Your task to perform on an android device: turn on sleep mode Image 0: 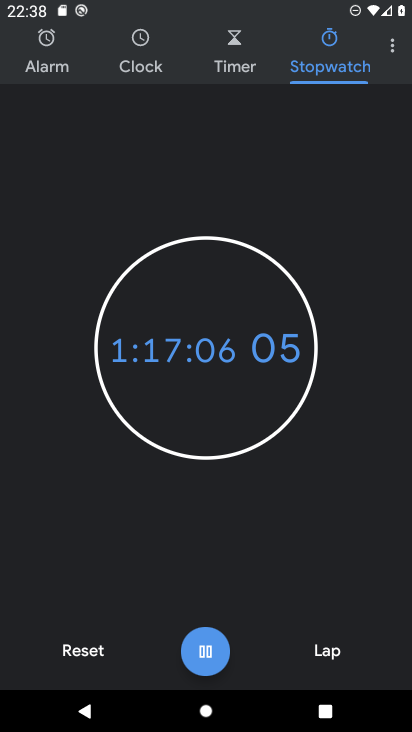
Step 0: press home button
Your task to perform on an android device: turn on sleep mode Image 1: 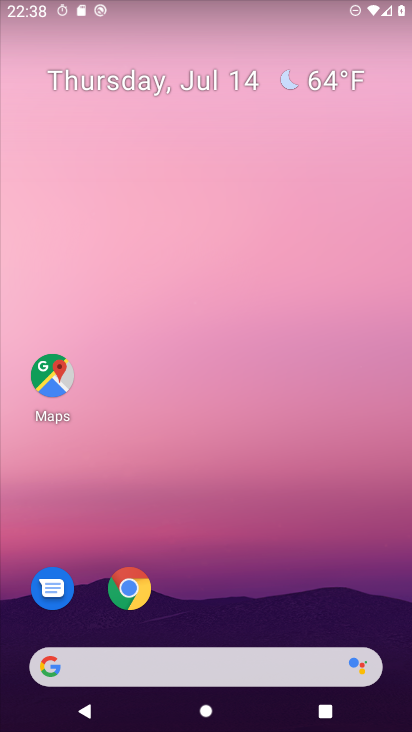
Step 1: drag from (379, 587) to (398, 222)
Your task to perform on an android device: turn on sleep mode Image 2: 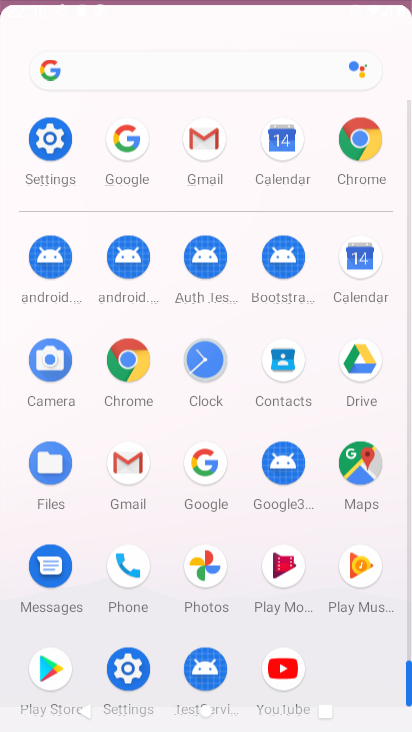
Step 2: drag from (341, 231) to (343, 92)
Your task to perform on an android device: turn on sleep mode Image 3: 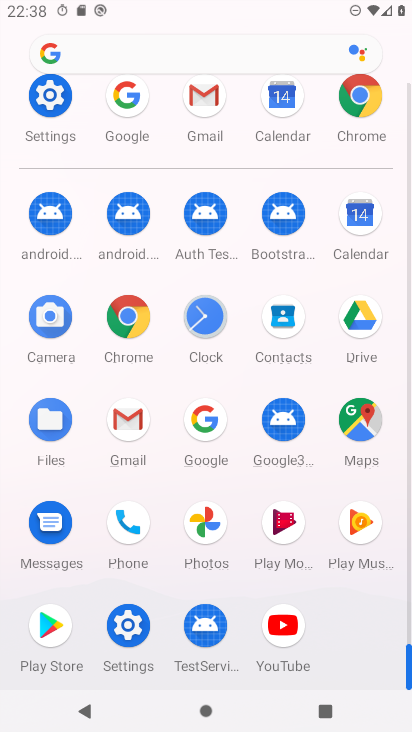
Step 3: click (62, 102)
Your task to perform on an android device: turn on sleep mode Image 4: 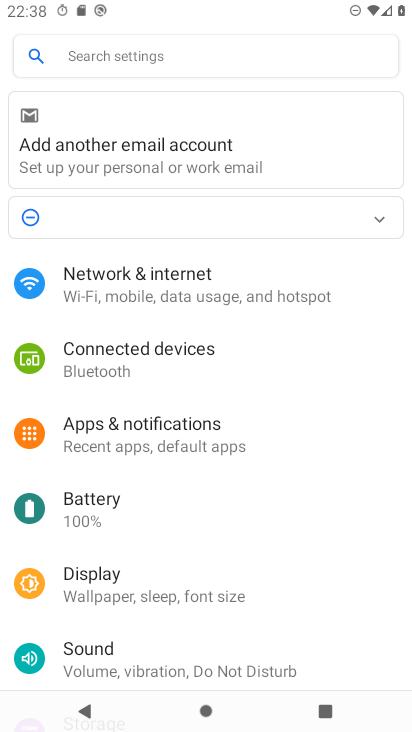
Step 4: drag from (333, 482) to (341, 395)
Your task to perform on an android device: turn on sleep mode Image 5: 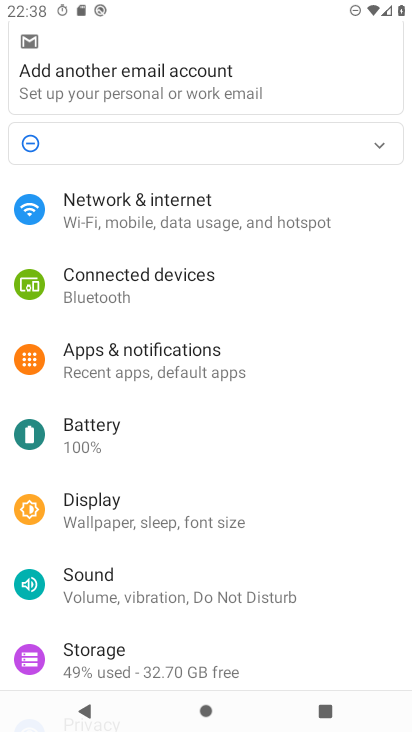
Step 5: drag from (332, 508) to (334, 416)
Your task to perform on an android device: turn on sleep mode Image 6: 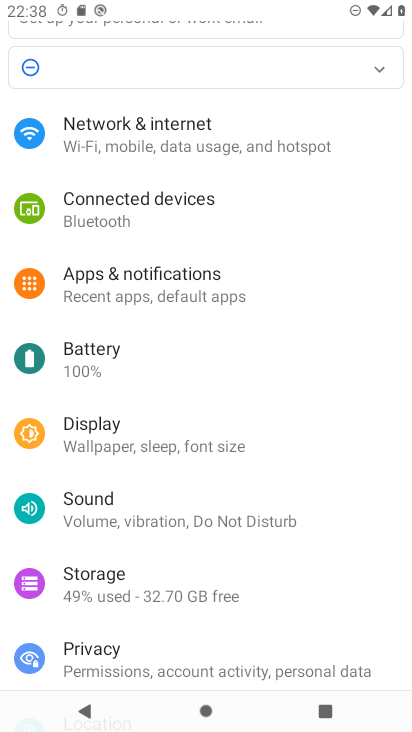
Step 6: drag from (342, 501) to (348, 420)
Your task to perform on an android device: turn on sleep mode Image 7: 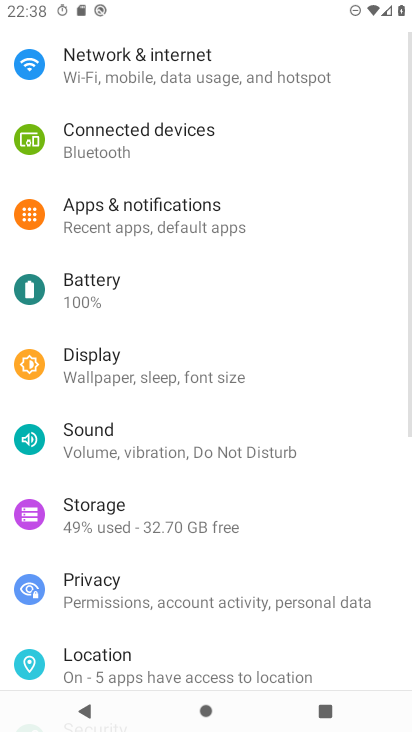
Step 7: drag from (343, 508) to (348, 416)
Your task to perform on an android device: turn on sleep mode Image 8: 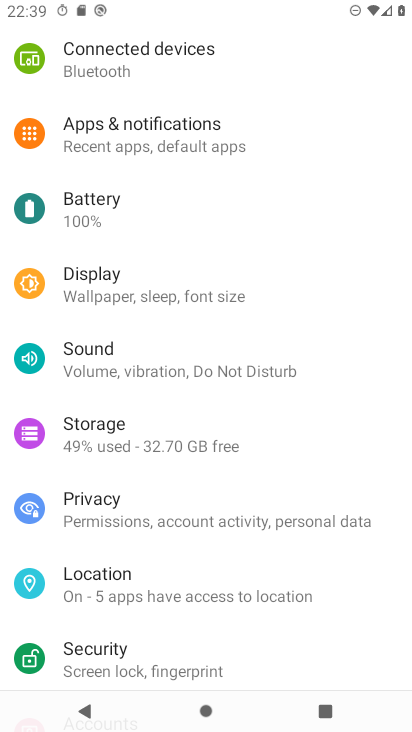
Step 8: drag from (339, 533) to (342, 419)
Your task to perform on an android device: turn on sleep mode Image 9: 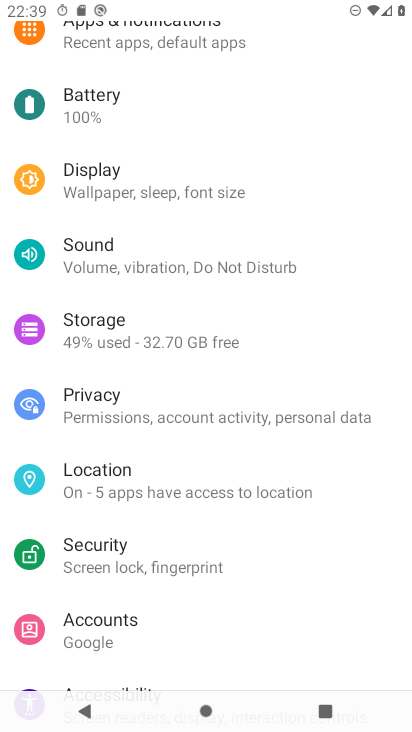
Step 9: drag from (343, 523) to (346, 411)
Your task to perform on an android device: turn on sleep mode Image 10: 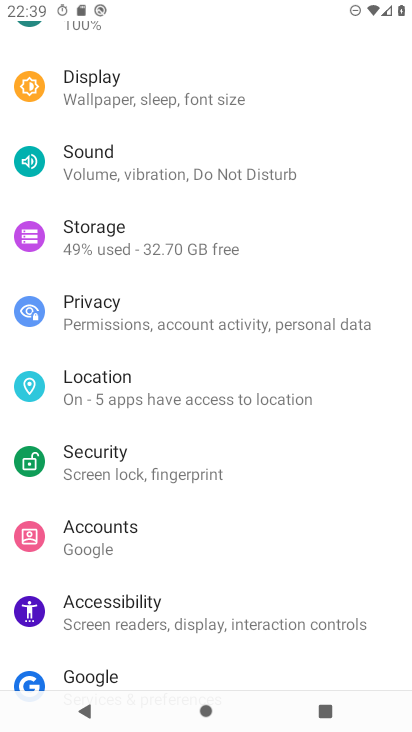
Step 10: drag from (338, 545) to (339, 422)
Your task to perform on an android device: turn on sleep mode Image 11: 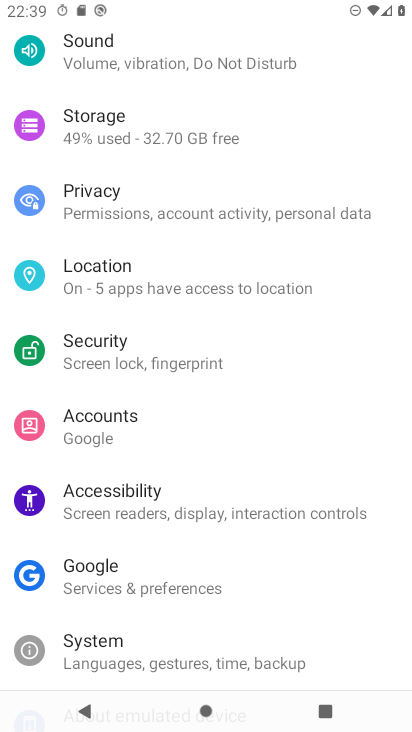
Step 11: drag from (344, 335) to (347, 410)
Your task to perform on an android device: turn on sleep mode Image 12: 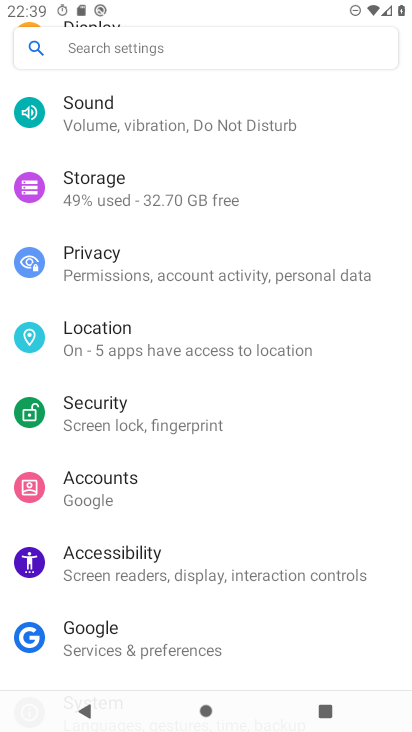
Step 12: drag from (347, 326) to (346, 409)
Your task to perform on an android device: turn on sleep mode Image 13: 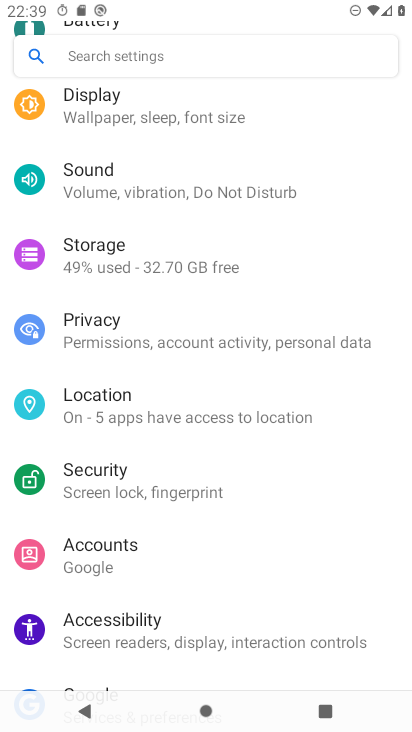
Step 13: drag from (347, 277) to (346, 355)
Your task to perform on an android device: turn on sleep mode Image 14: 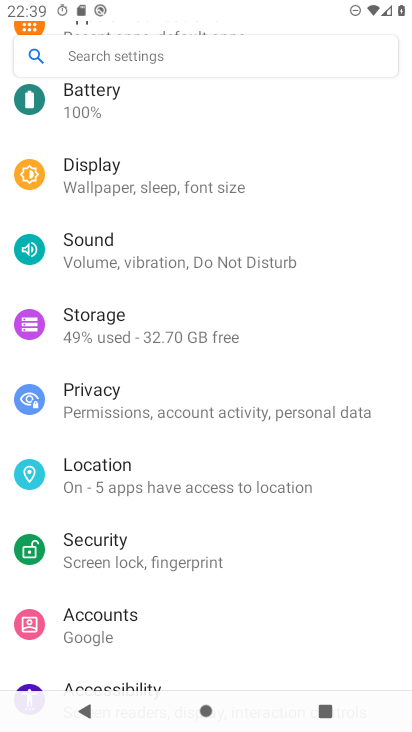
Step 14: drag from (344, 241) to (344, 324)
Your task to perform on an android device: turn on sleep mode Image 15: 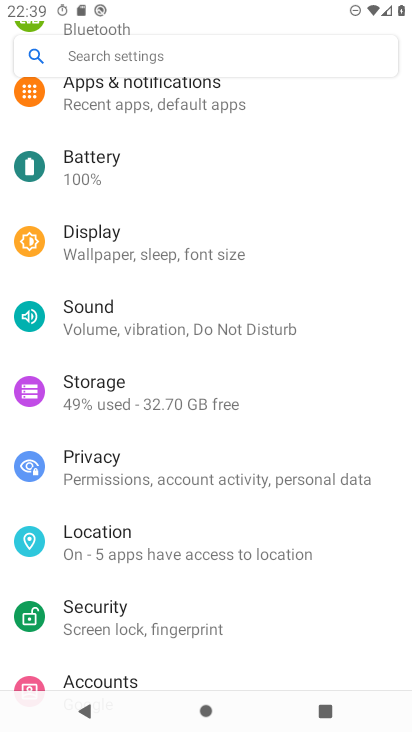
Step 15: drag from (340, 244) to (340, 329)
Your task to perform on an android device: turn on sleep mode Image 16: 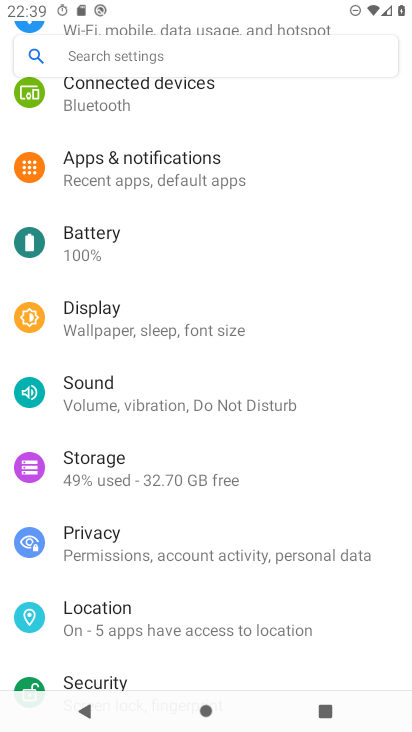
Step 16: click (317, 325)
Your task to perform on an android device: turn on sleep mode Image 17: 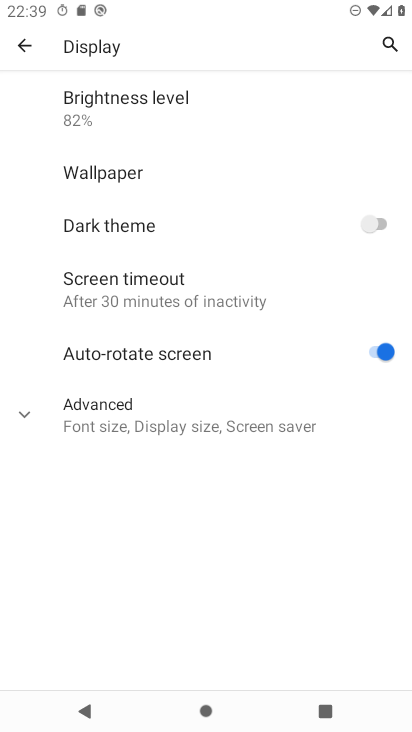
Step 17: click (268, 416)
Your task to perform on an android device: turn on sleep mode Image 18: 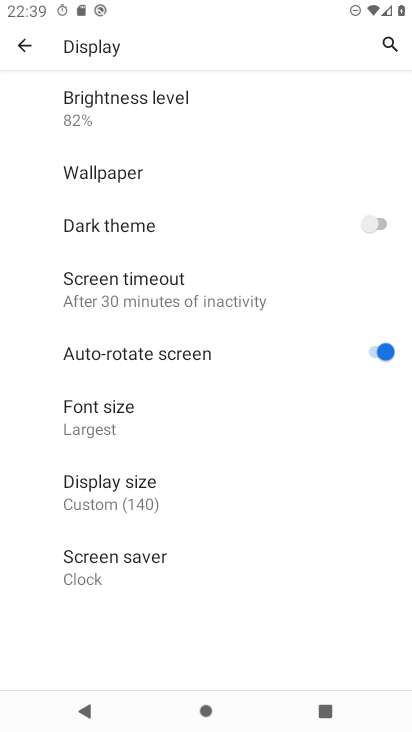
Step 18: task complete